Your task to perform on an android device: change the clock display to show seconds Image 0: 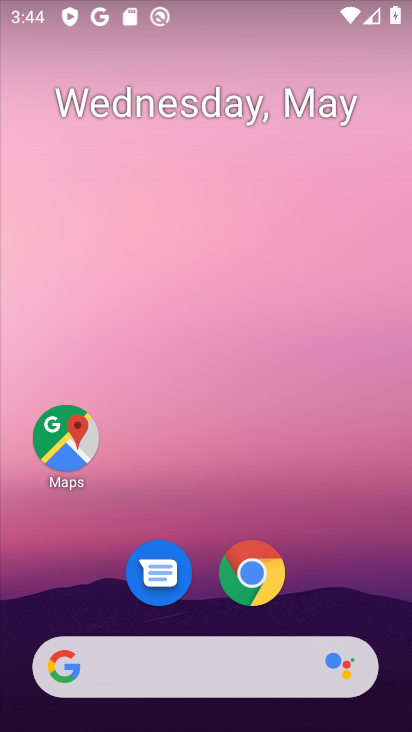
Step 0: drag from (260, 636) to (279, 104)
Your task to perform on an android device: change the clock display to show seconds Image 1: 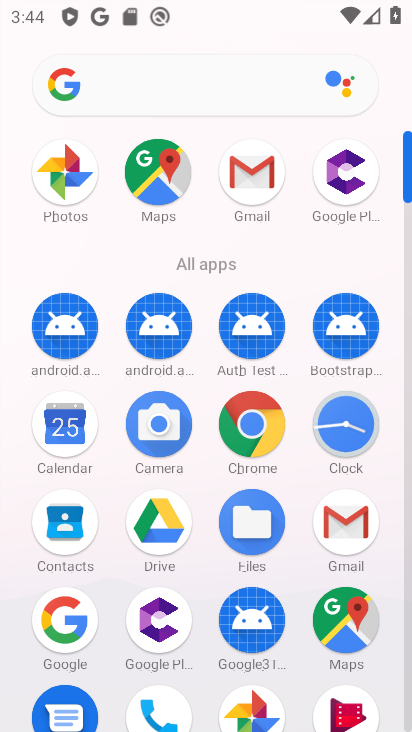
Step 1: click (355, 438)
Your task to perform on an android device: change the clock display to show seconds Image 2: 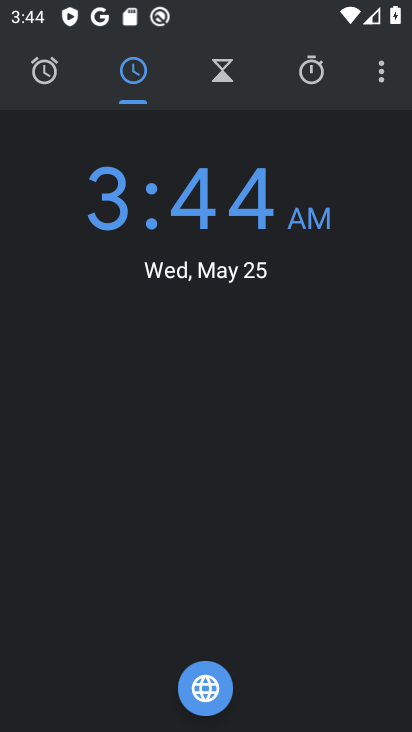
Step 2: click (373, 76)
Your task to perform on an android device: change the clock display to show seconds Image 3: 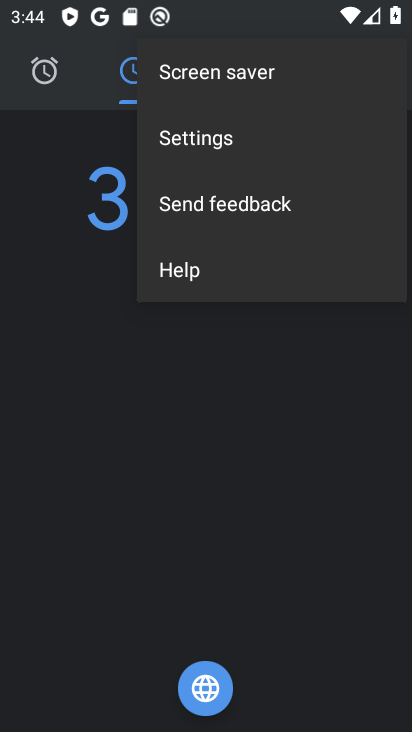
Step 3: click (259, 144)
Your task to perform on an android device: change the clock display to show seconds Image 4: 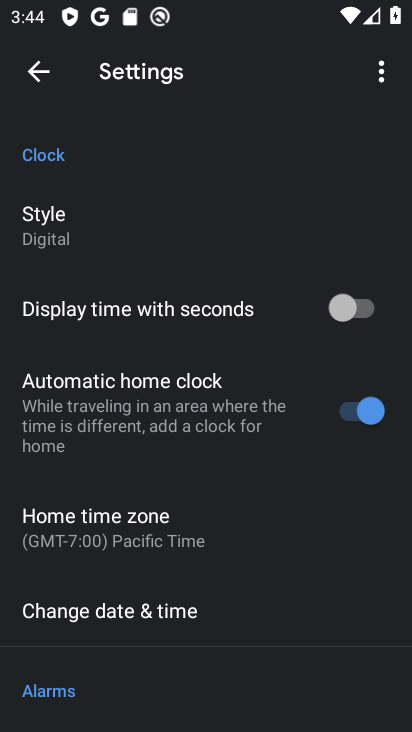
Step 4: click (343, 308)
Your task to perform on an android device: change the clock display to show seconds Image 5: 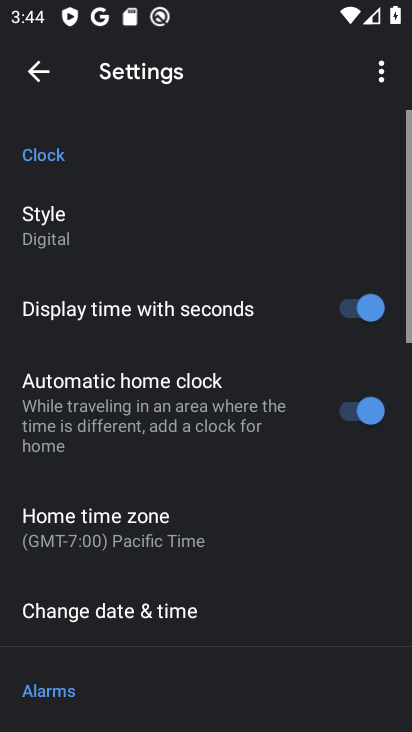
Step 5: task complete